Your task to perform on an android device: change text size in settings app Image 0: 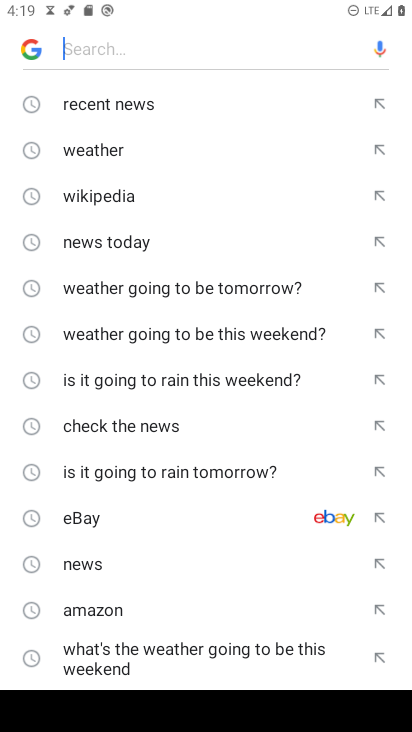
Step 0: press home button
Your task to perform on an android device: change text size in settings app Image 1: 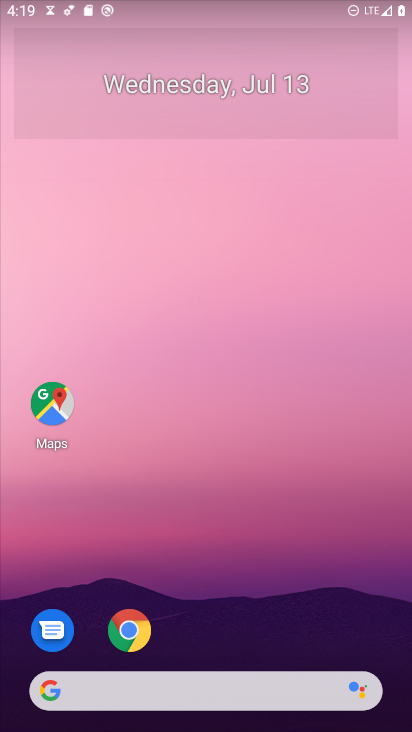
Step 1: drag from (313, 562) to (289, 93)
Your task to perform on an android device: change text size in settings app Image 2: 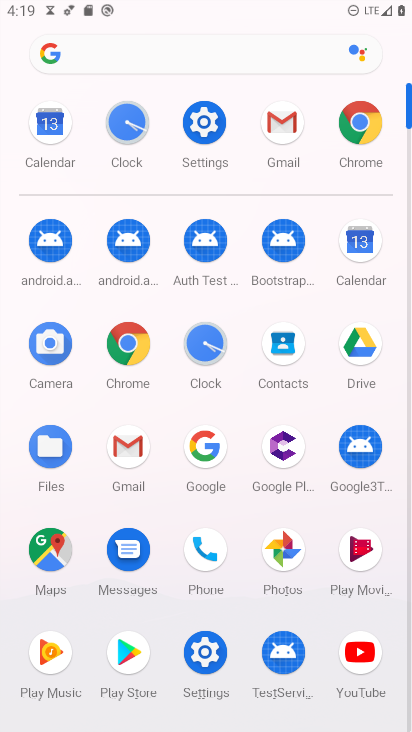
Step 2: click (210, 126)
Your task to perform on an android device: change text size in settings app Image 3: 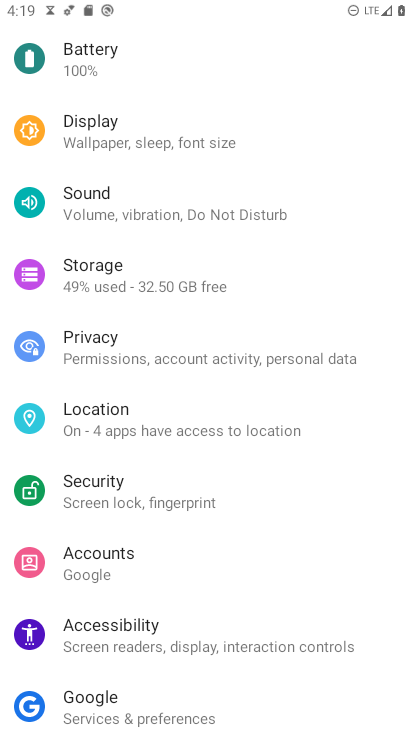
Step 3: click (120, 131)
Your task to perform on an android device: change text size in settings app Image 4: 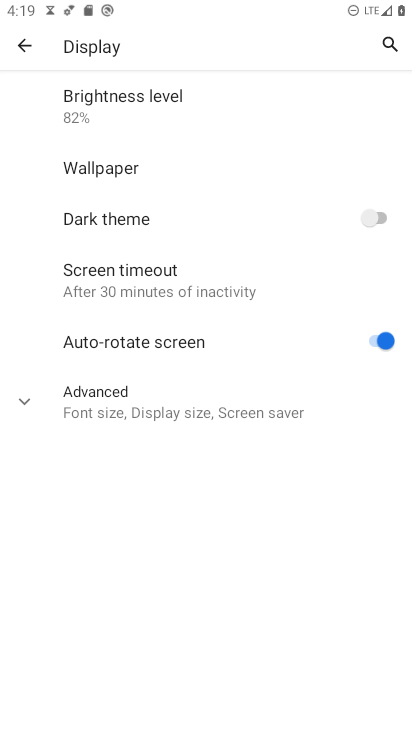
Step 4: click (31, 399)
Your task to perform on an android device: change text size in settings app Image 5: 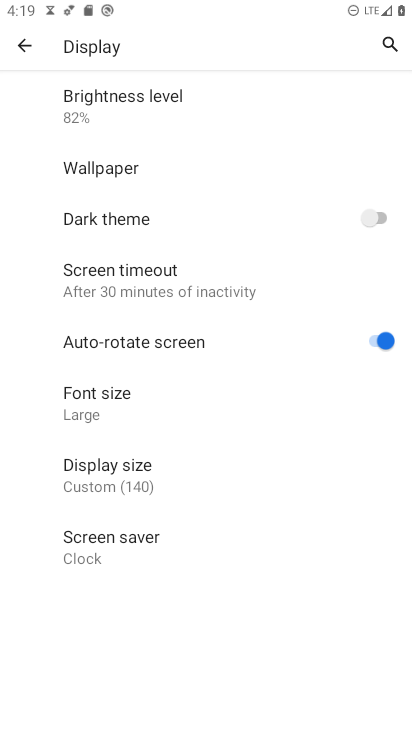
Step 5: click (120, 402)
Your task to perform on an android device: change text size in settings app Image 6: 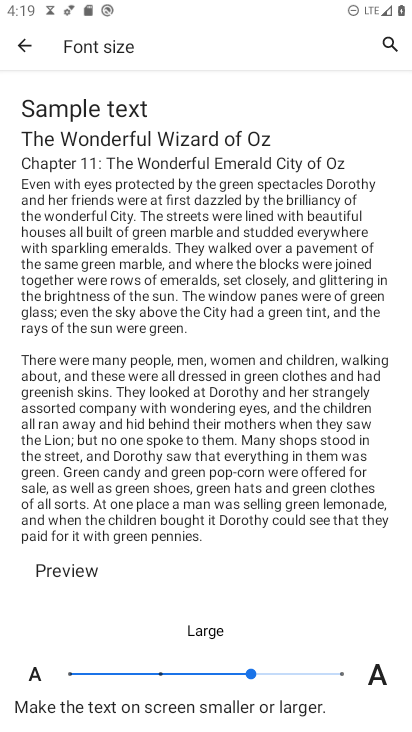
Step 6: click (342, 673)
Your task to perform on an android device: change text size in settings app Image 7: 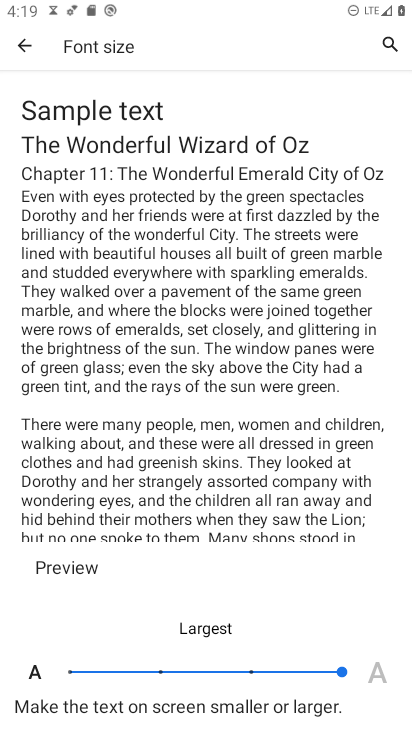
Step 7: task complete